Your task to perform on an android device: Go to Wikipedia Image 0: 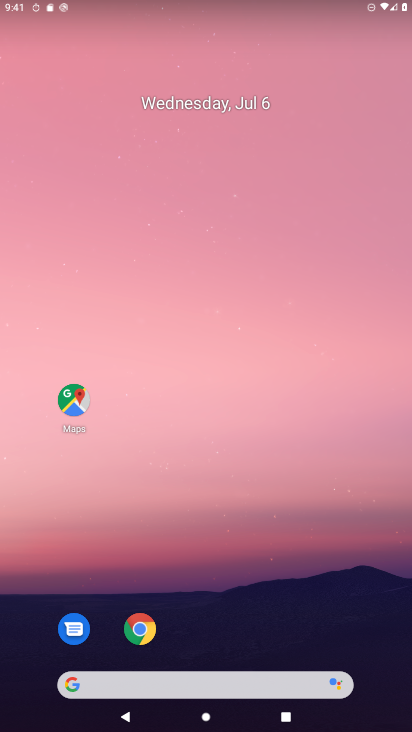
Step 0: click (138, 627)
Your task to perform on an android device: Go to Wikipedia Image 1: 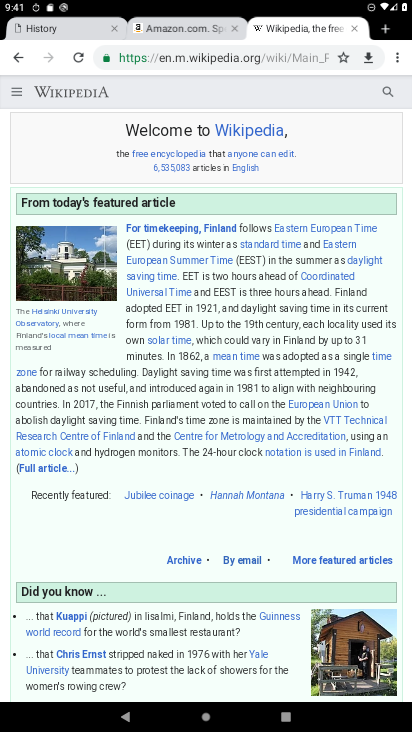
Step 1: task complete